Your task to perform on an android device: Turn on the flashlight Image 0: 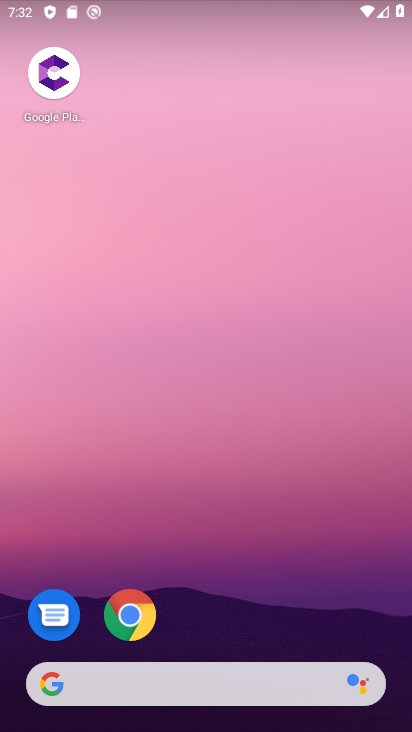
Step 0: drag from (292, 703) to (141, 319)
Your task to perform on an android device: Turn on the flashlight Image 1: 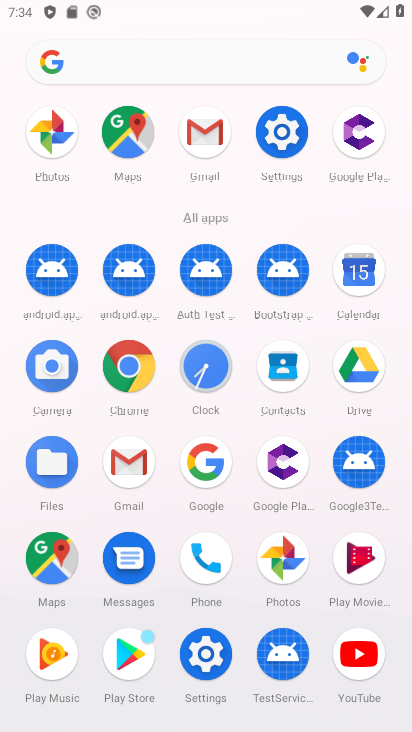
Step 1: click (276, 137)
Your task to perform on an android device: Turn on the flashlight Image 2: 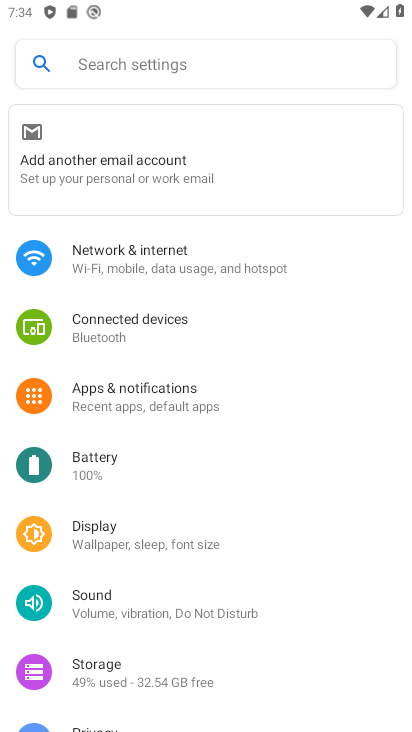
Step 2: click (147, 61)
Your task to perform on an android device: Turn on the flashlight Image 3: 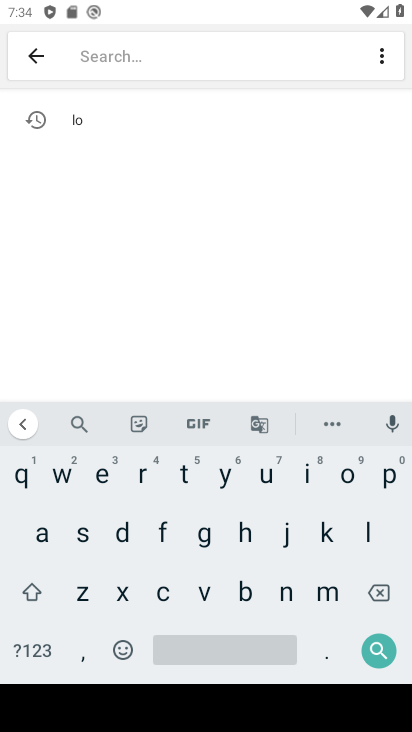
Step 3: click (161, 542)
Your task to perform on an android device: Turn on the flashlight Image 4: 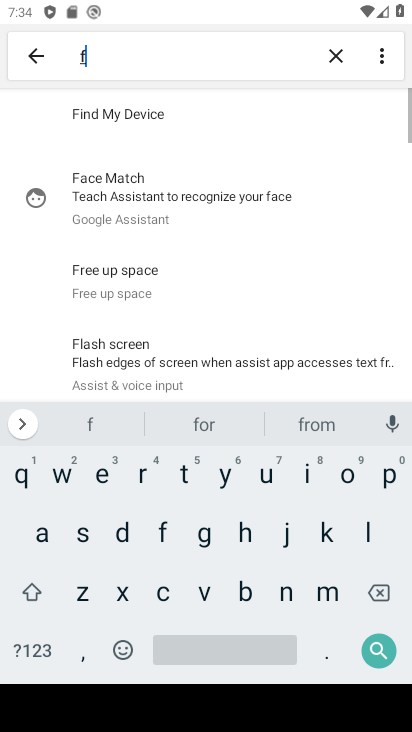
Step 4: click (362, 533)
Your task to perform on an android device: Turn on the flashlight Image 5: 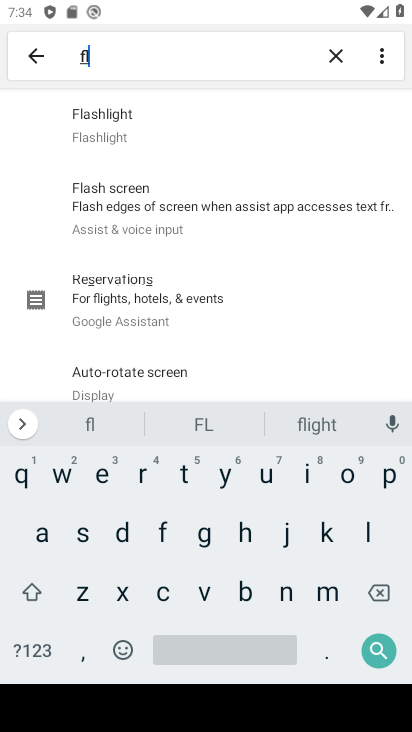
Step 5: click (160, 143)
Your task to perform on an android device: Turn on the flashlight Image 6: 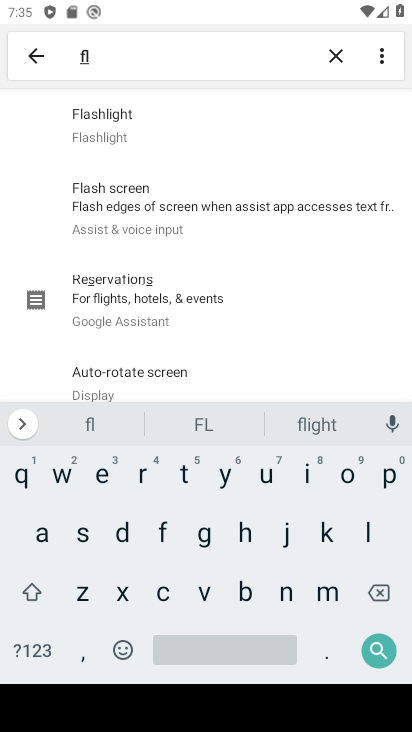
Step 6: task complete